Your task to perform on an android device: turn off javascript in the chrome app Image 0: 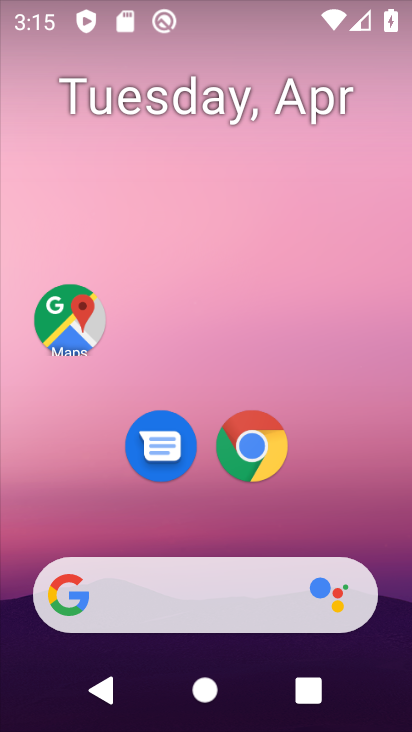
Step 0: click (267, 466)
Your task to perform on an android device: turn off javascript in the chrome app Image 1: 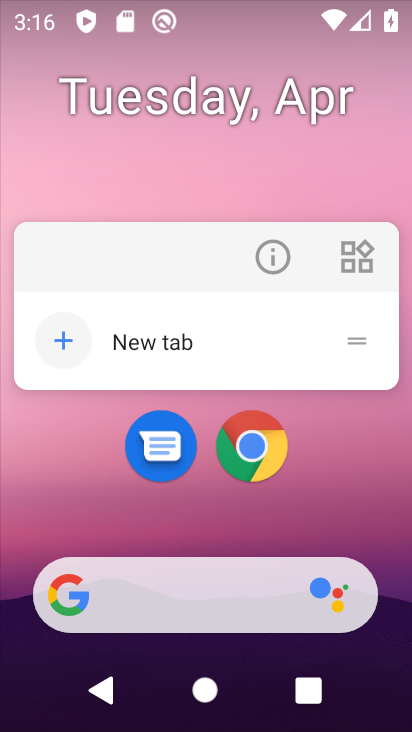
Step 1: click (360, 519)
Your task to perform on an android device: turn off javascript in the chrome app Image 2: 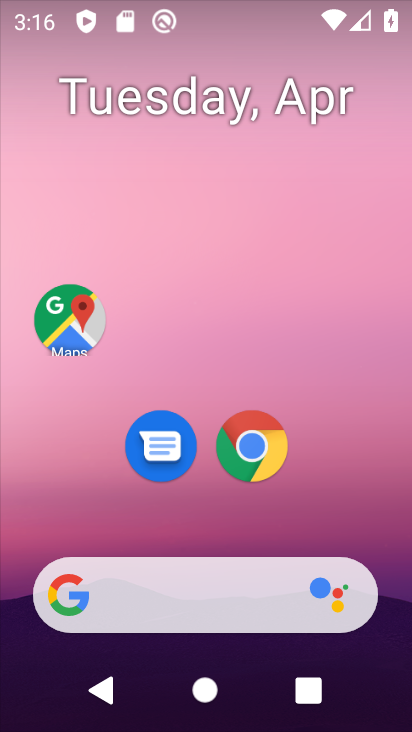
Step 2: click (360, 519)
Your task to perform on an android device: turn off javascript in the chrome app Image 3: 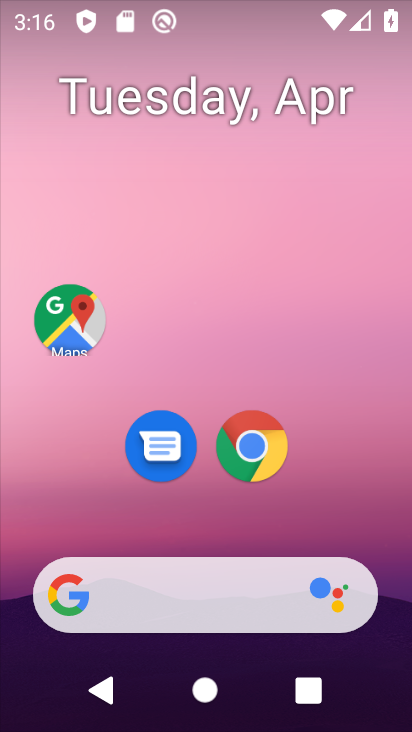
Step 3: click (274, 441)
Your task to perform on an android device: turn off javascript in the chrome app Image 4: 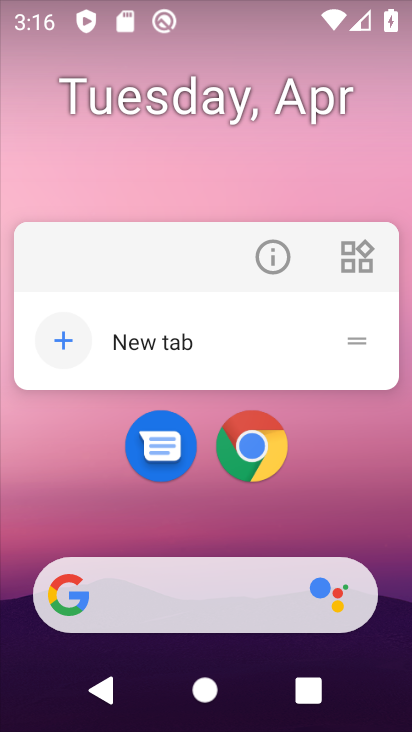
Step 4: click (274, 441)
Your task to perform on an android device: turn off javascript in the chrome app Image 5: 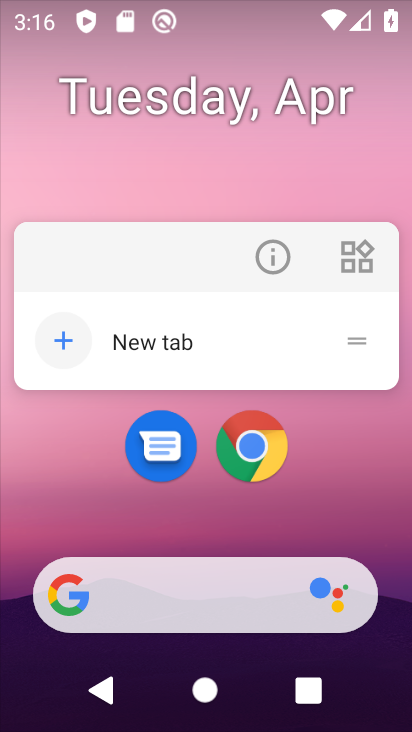
Step 5: click (274, 441)
Your task to perform on an android device: turn off javascript in the chrome app Image 6: 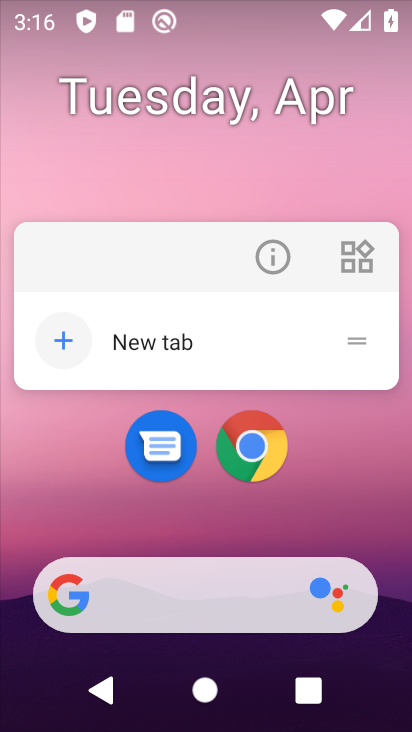
Step 6: click (287, 490)
Your task to perform on an android device: turn off javascript in the chrome app Image 7: 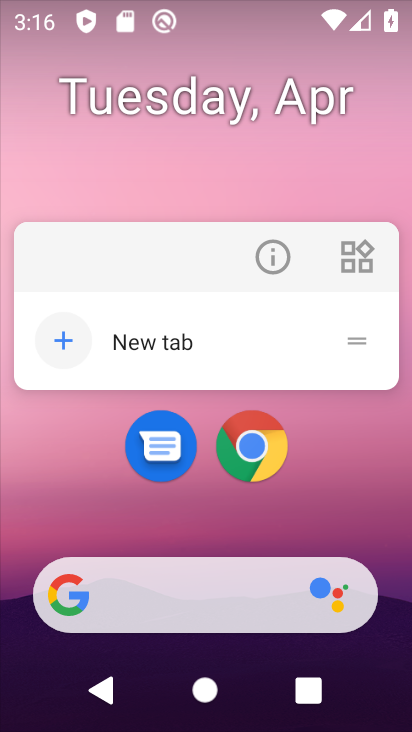
Step 7: drag from (285, 502) to (353, 69)
Your task to perform on an android device: turn off javascript in the chrome app Image 8: 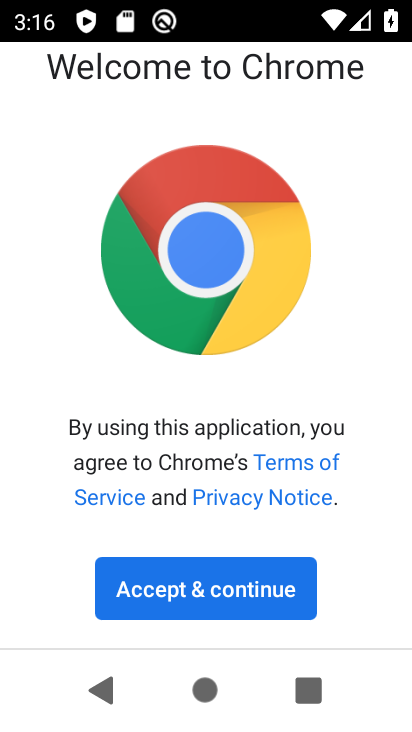
Step 8: click (235, 582)
Your task to perform on an android device: turn off javascript in the chrome app Image 9: 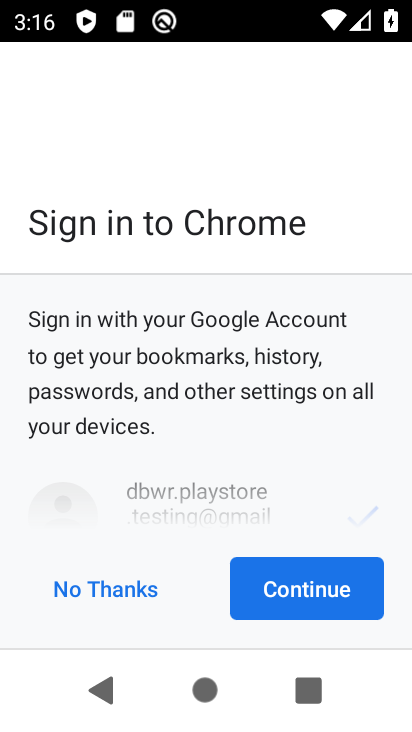
Step 9: click (261, 607)
Your task to perform on an android device: turn off javascript in the chrome app Image 10: 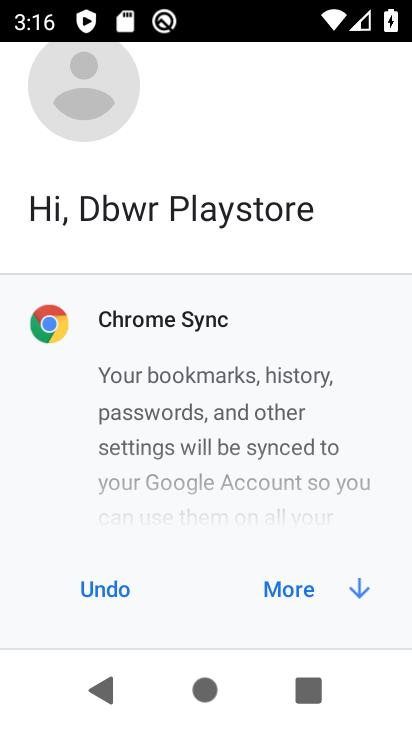
Step 10: click (304, 584)
Your task to perform on an android device: turn off javascript in the chrome app Image 11: 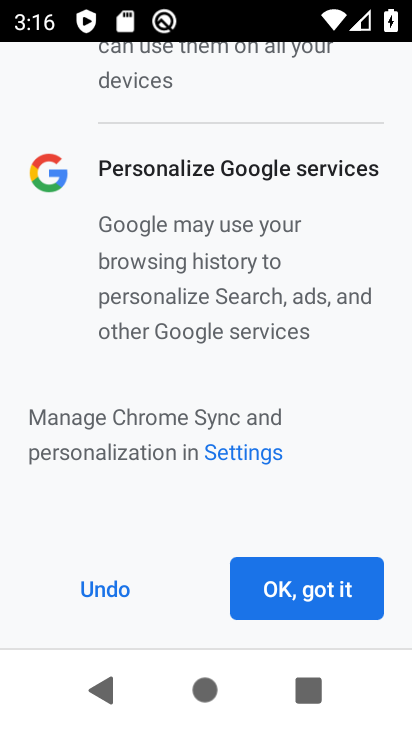
Step 11: click (304, 584)
Your task to perform on an android device: turn off javascript in the chrome app Image 12: 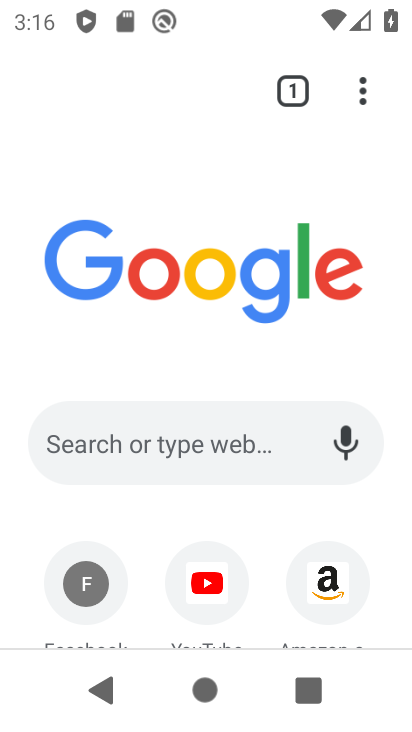
Step 12: drag from (362, 96) to (95, 464)
Your task to perform on an android device: turn off javascript in the chrome app Image 13: 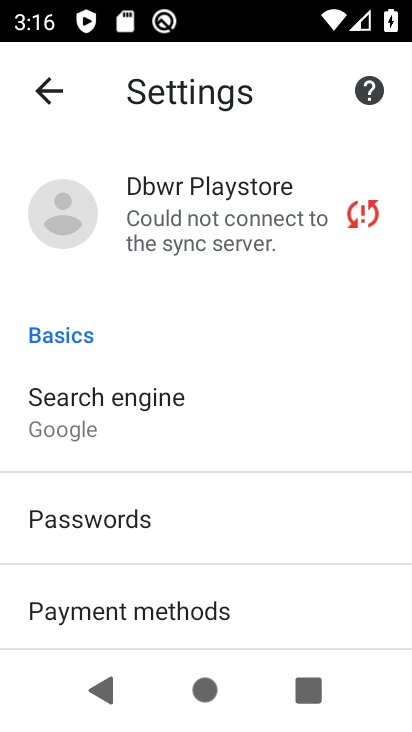
Step 13: drag from (303, 580) to (369, 281)
Your task to perform on an android device: turn off javascript in the chrome app Image 14: 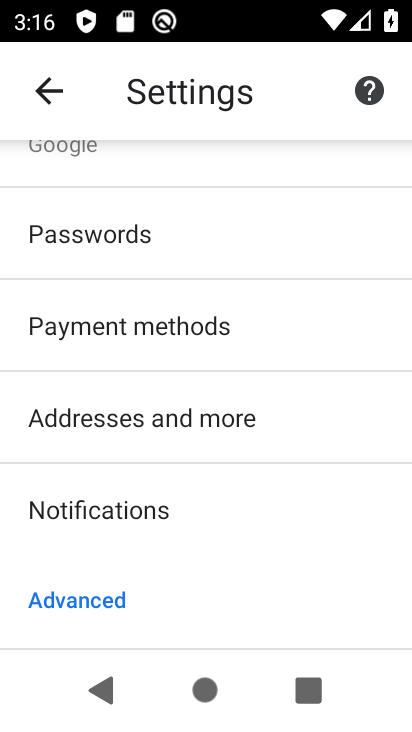
Step 14: drag from (270, 557) to (311, 256)
Your task to perform on an android device: turn off javascript in the chrome app Image 15: 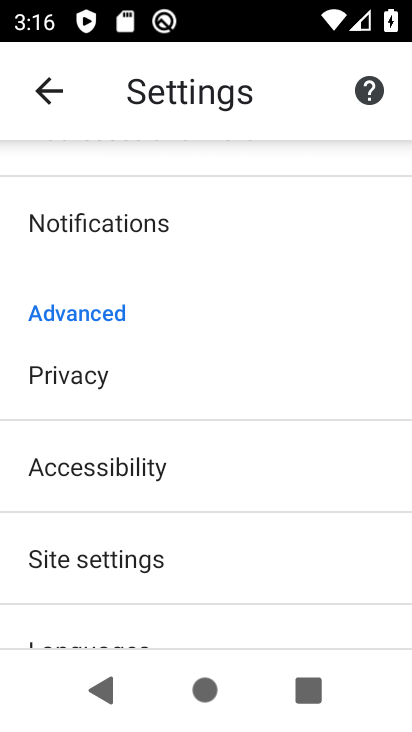
Step 15: drag from (371, 451) to (399, 311)
Your task to perform on an android device: turn off javascript in the chrome app Image 16: 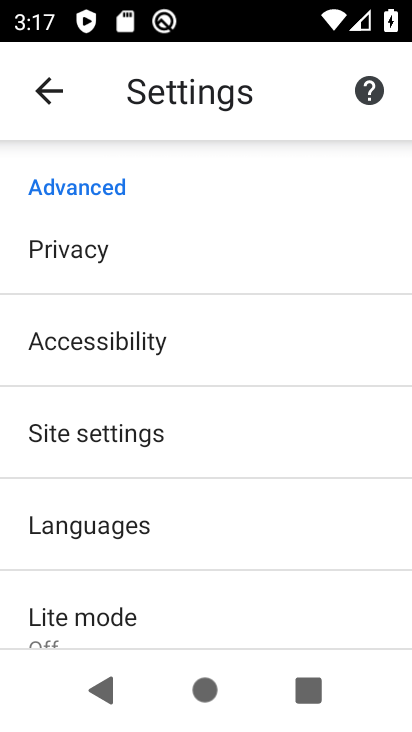
Step 16: click (134, 431)
Your task to perform on an android device: turn off javascript in the chrome app Image 17: 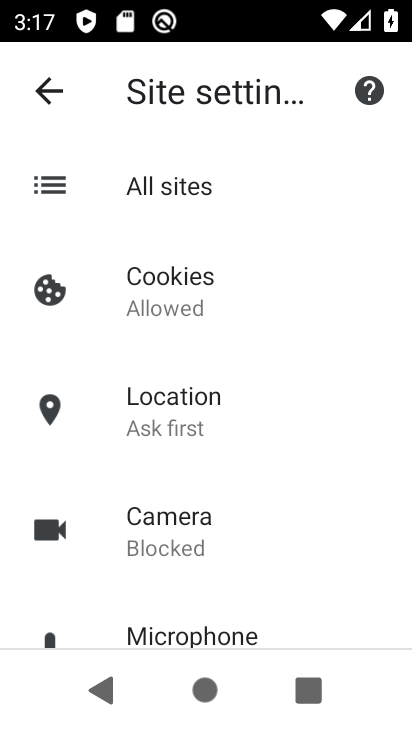
Step 17: drag from (262, 589) to (278, 290)
Your task to perform on an android device: turn off javascript in the chrome app Image 18: 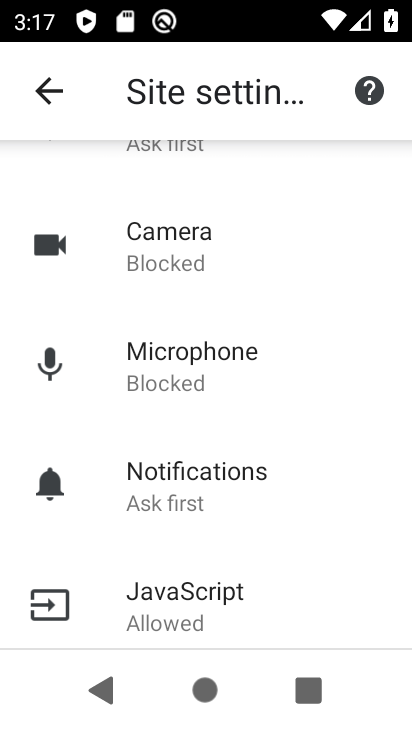
Step 18: click (166, 599)
Your task to perform on an android device: turn off javascript in the chrome app Image 19: 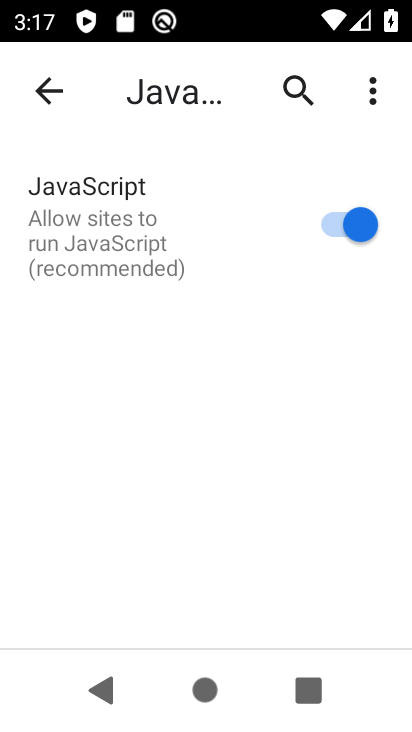
Step 19: click (338, 218)
Your task to perform on an android device: turn off javascript in the chrome app Image 20: 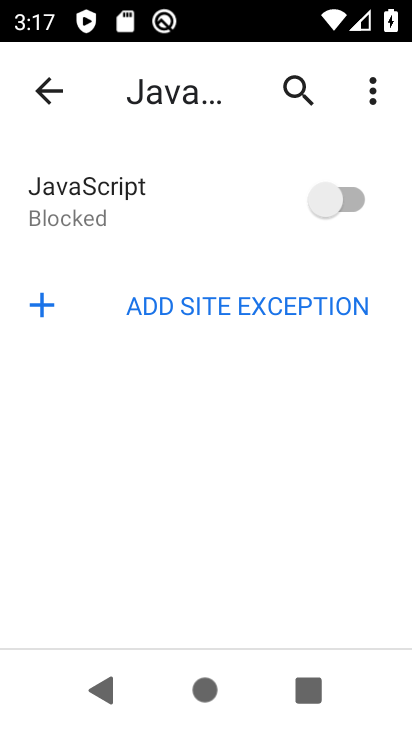
Step 20: task complete